Your task to perform on an android device: Open calendar and show me the third week of next month Image 0: 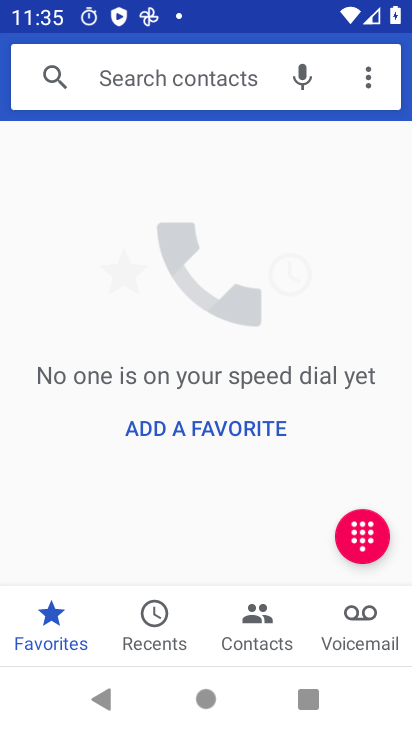
Step 0: drag from (257, 653) to (401, 592)
Your task to perform on an android device: Open calendar and show me the third week of next month Image 1: 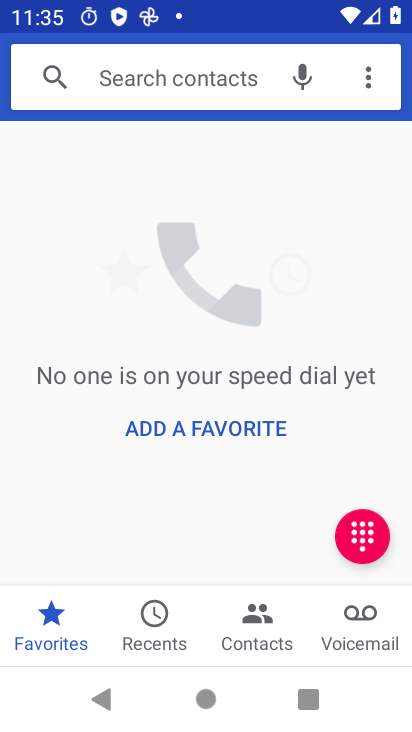
Step 1: press home button
Your task to perform on an android device: Open calendar and show me the third week of next month Image 2: 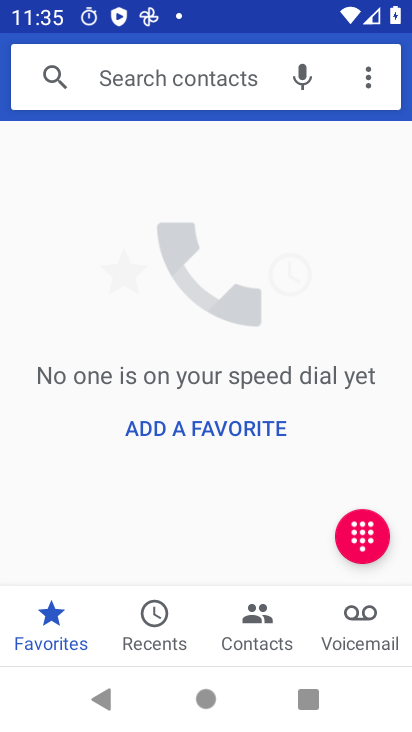
Step 2: drag from (401, 592) to (356, 595)
Your task to perform on an android device: Open calendar and show me the third week of next month Image 3: 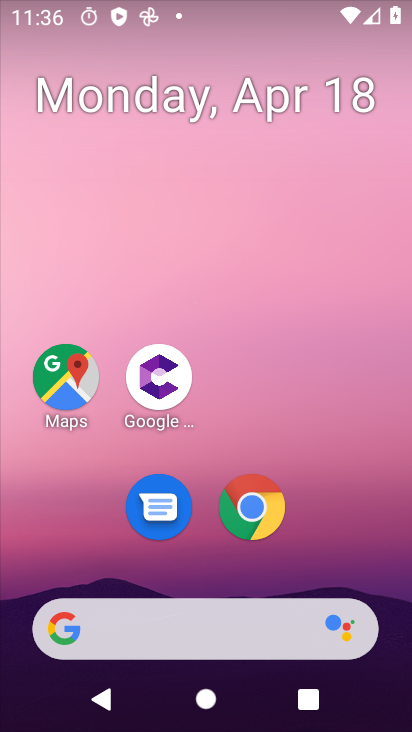
Step 3: drag from (354, 633) to (288, 258)
Your task to perform on an android device: Open calendar and show me the third week of next month Image 4: 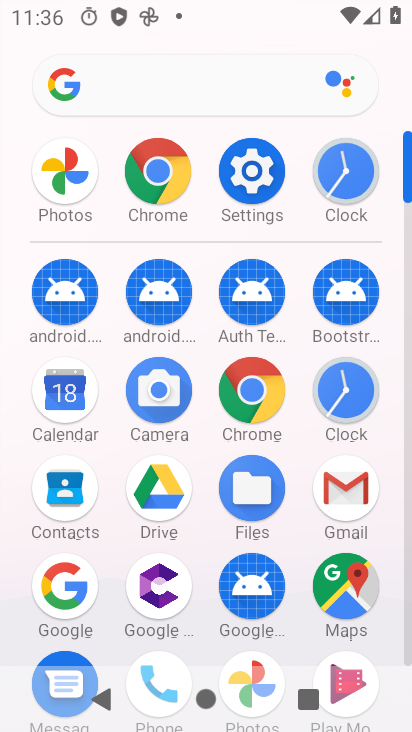
Step 4: click (78, 400)
Your task to perform on an android device: Open calendar and show me the third week of next month Image 5: 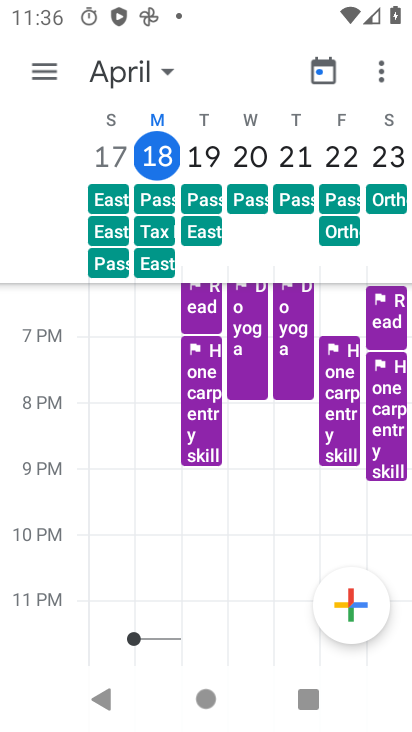
Step 5: click (49, 77)
Your task to perform on an android device: Open calendar and show me the third week of next month Image 6: 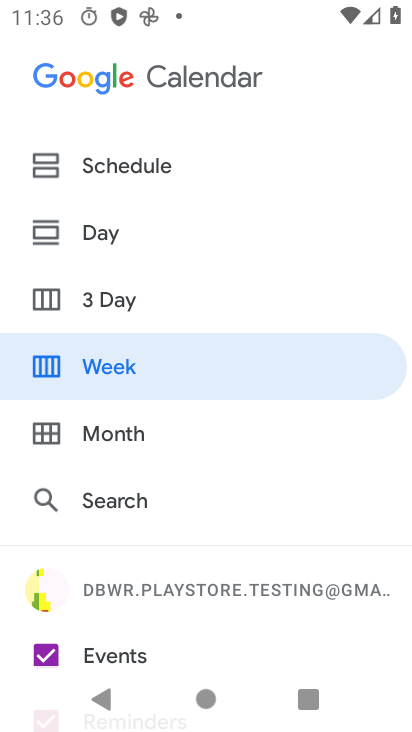
Step 6: click (135, 444)
Your task to perform on an android device: Open calendar and show me the third week of next month Image 7: 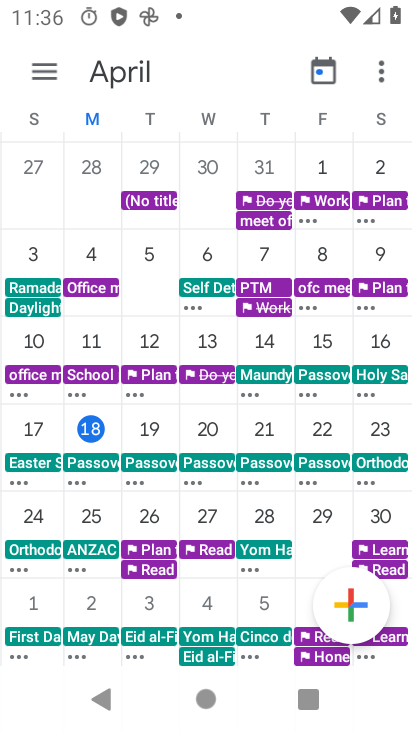
Step 7: drag from (321, 440) to (0, 426)
Your task to perform on an android device: Open calendar and show me the third week of next month Image 8: 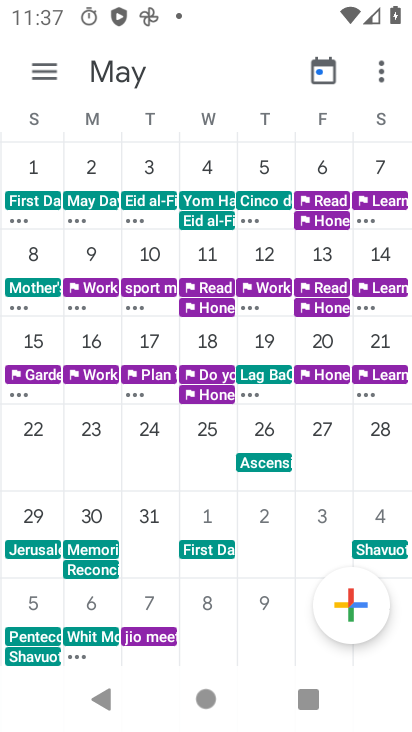
Step 8: click (40, 79)
Your task to perform on an android device: Open calendar and show me the third week of next month Image 9: 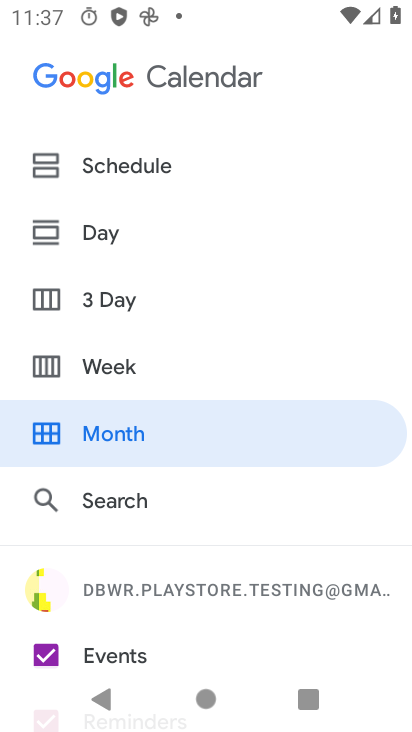
Step 9: click (158, 368)
Your task to perform on an android device: Open calendar and show me the third week of next month Image 10: 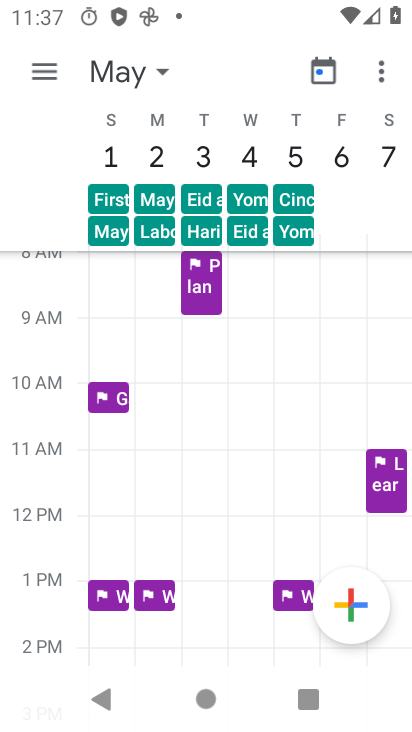
Step 10: task complete